Your task to perform on an android device: show emergency info Image 0: 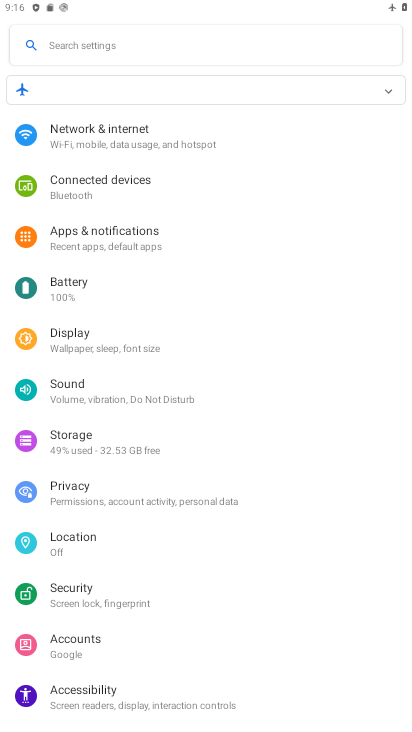
Step 0: drag from (123, 629) to (209, 140)
Your task to perform on an android device: show emergency info Image 1: 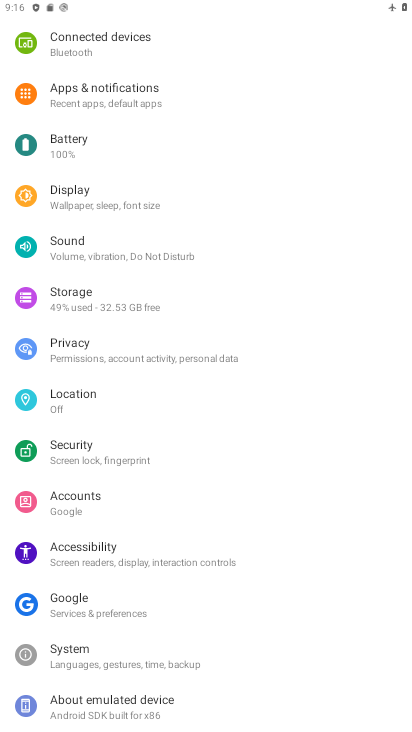
Step 1: click (108, 701)
Your task to perform on an android device: show emergency info Image 2: 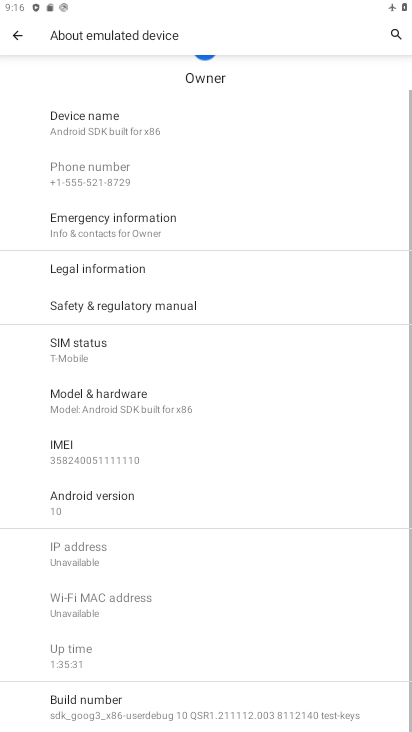
Step 2: click (166, 235)
Your task to perform on an android device: show emergency info Image 3: 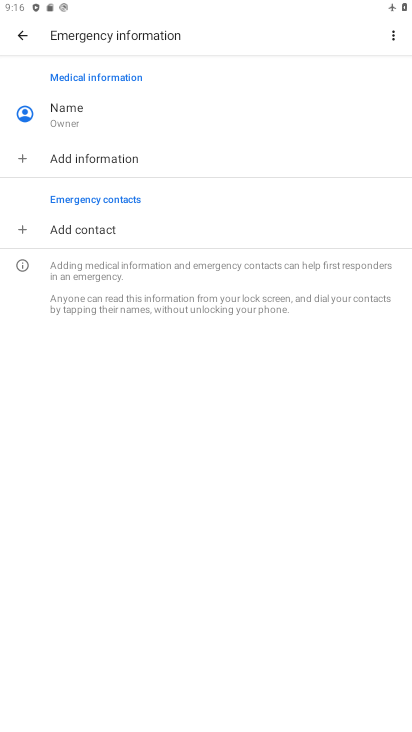
Step 3: task complete